Your task to perform on an android device: Open internet settings Image 0: 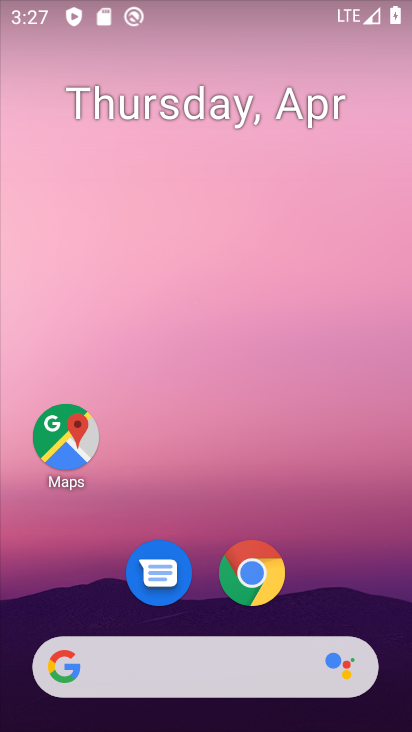
Step 0: drag from (354, 604) to (271, 70)
Your task to perform on an android device: Open internet settings Image 1: 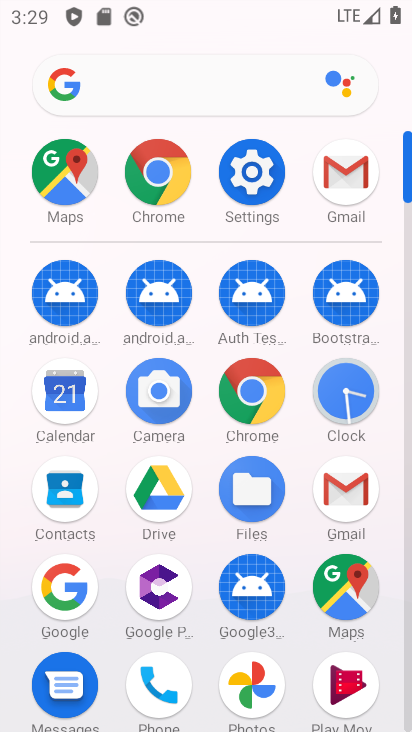
Step 1: click (258, 178)
Your task to perform on an android device: Open internet settings Image 2: 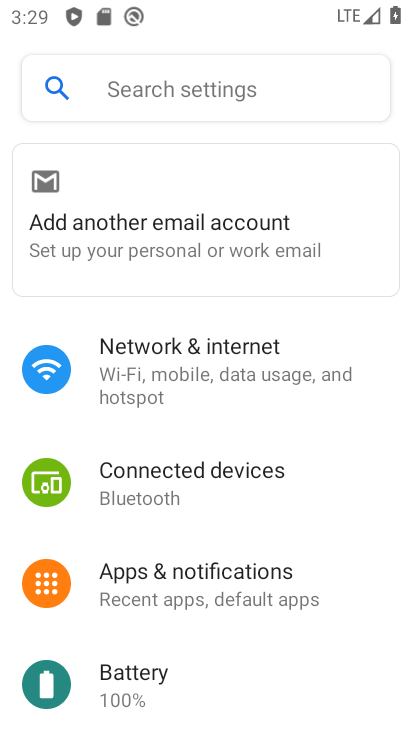
Step 2: click (171, 365)
Your task to perform on an android device: Open internet settings Image 3: 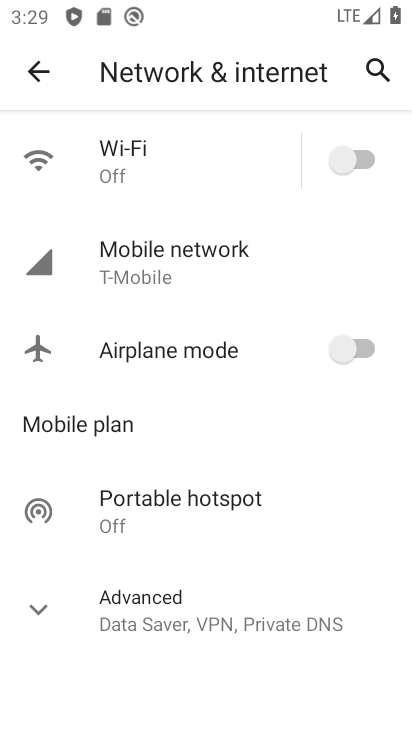
Step 3: task complete